Your task to perform on an android device: When is my next appointment? Image 0: 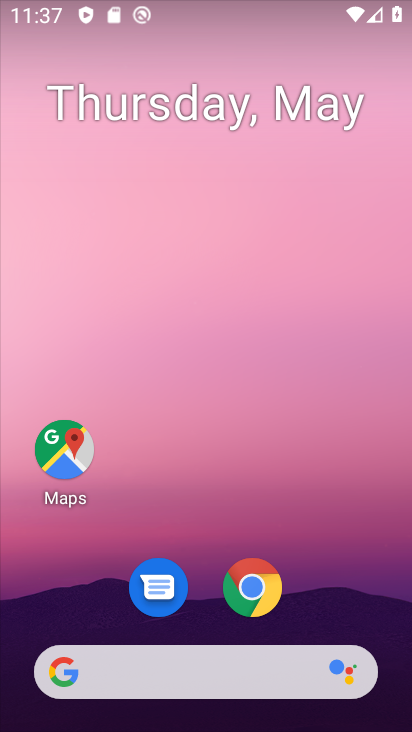
Step 0: drag from (208, 535) to (281, 61)
Your task to perform on an android device: When is my next appointment? Image 1: 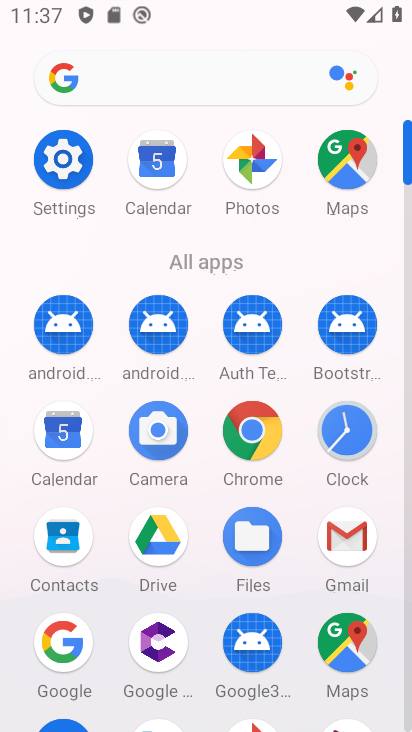
Step 1: click (57, 428)
Your task to perform on an android device: When is my next appointment? Image 2: 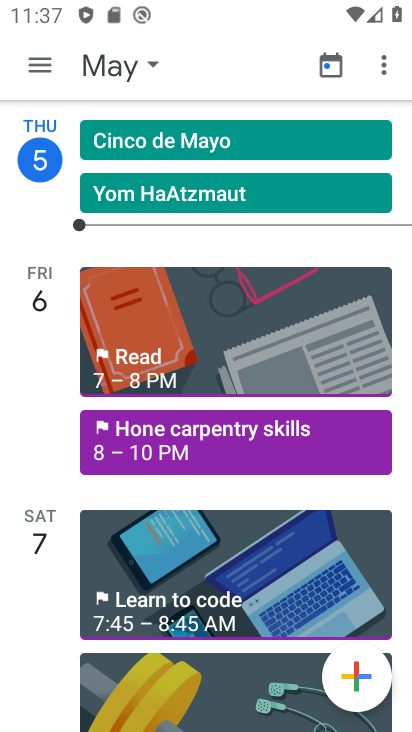
Step 2: drag from (185, 553) to (259, 158)
Your task to perform on an android device: When is my next appointment? Image 3: 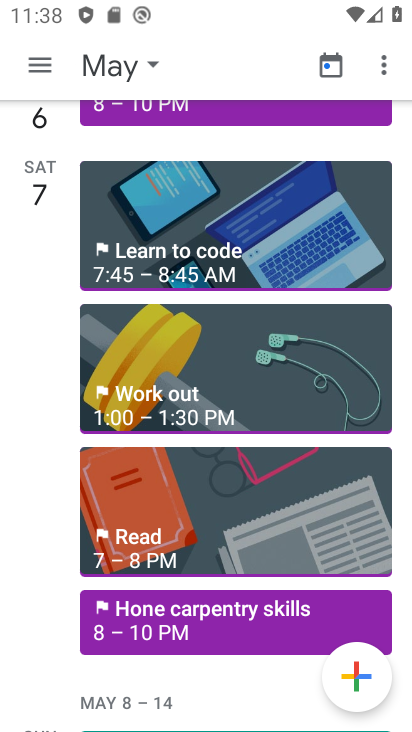
Step 3: drag from (178, 565) to (280, 141)
Your task to perform on an android device: When is my next appointment? Image 4: 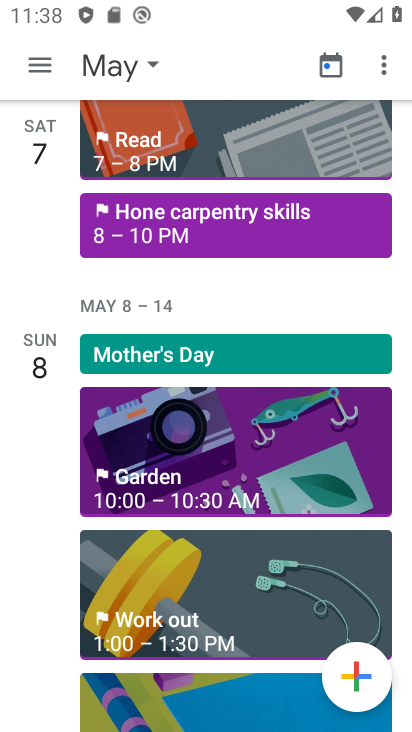
Step 4: drag from (264, 629) to (301, 270)
Your task to perform on an android device: When is my next appointment? Image 5: 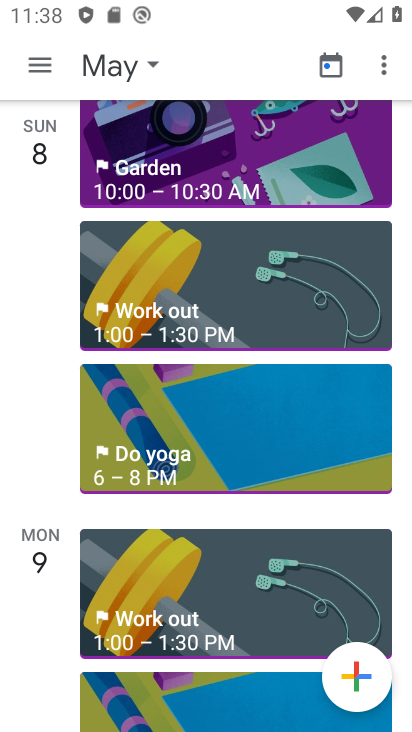
Step 5: drag from (174, 670) to (267, 302)
Your task to perform on an android device: When is my next appointment? Image 6: 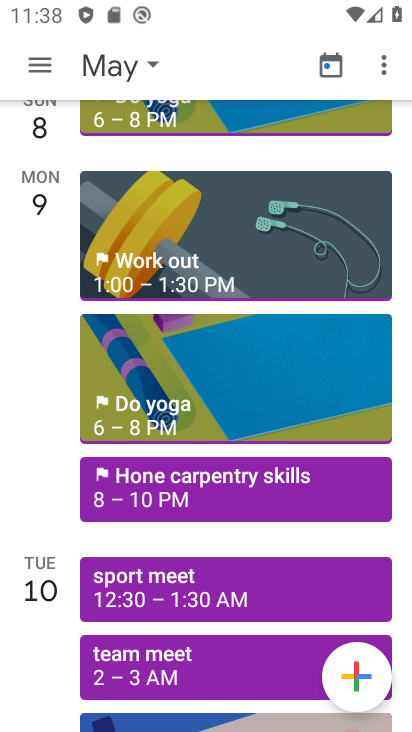
Step 6: click (195, 671)
Your task to perform on an android device: When is my next appointment? Image 7: 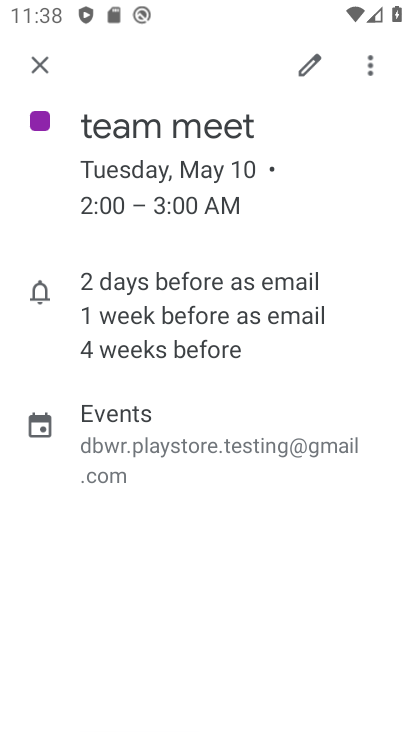
Step 7: task complete